Your task to perform on an android device: toggle notification dots Image 0: 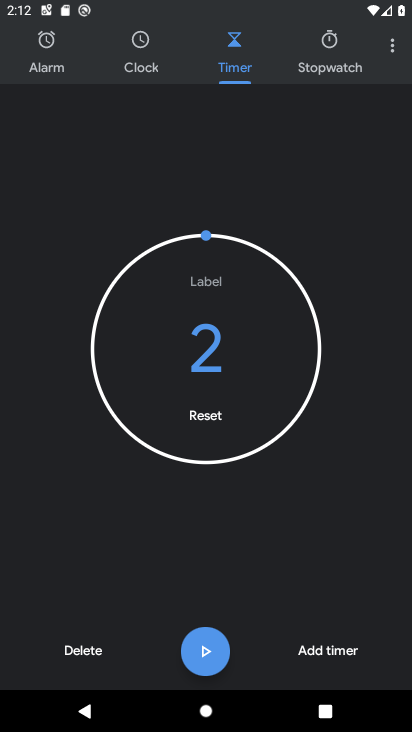
Step 0: press home button
Your task to perform on an android device: toggle notification dots Image 1: 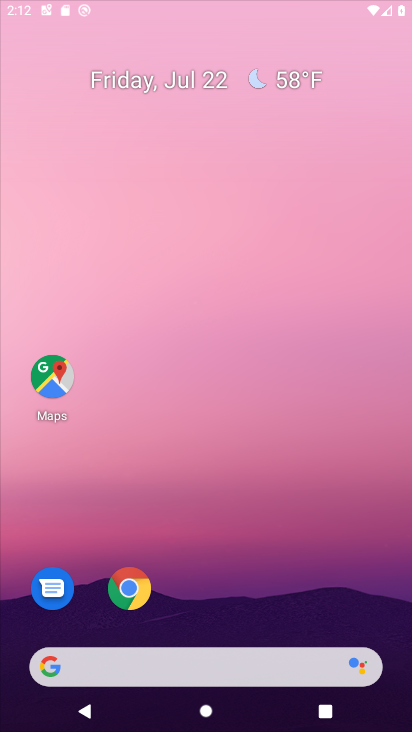
Step 1: drag from (247, 657) to (359, 65)
Your task to perform on an android device: toggle notification dots Image 2: 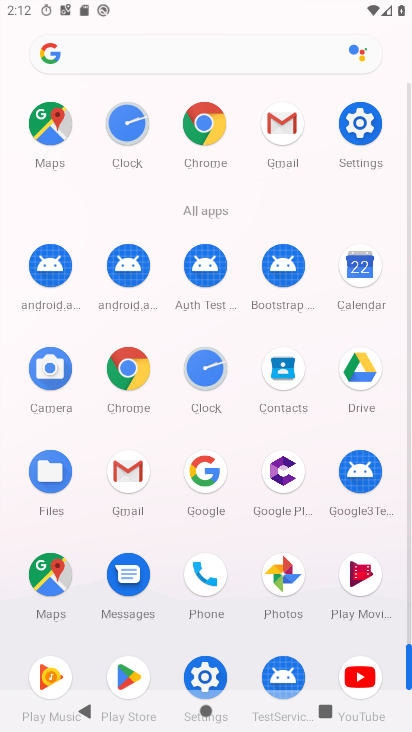
Step 2: click (377, 122)
Your task to perform on an android device: toggle notification dots Image 3: 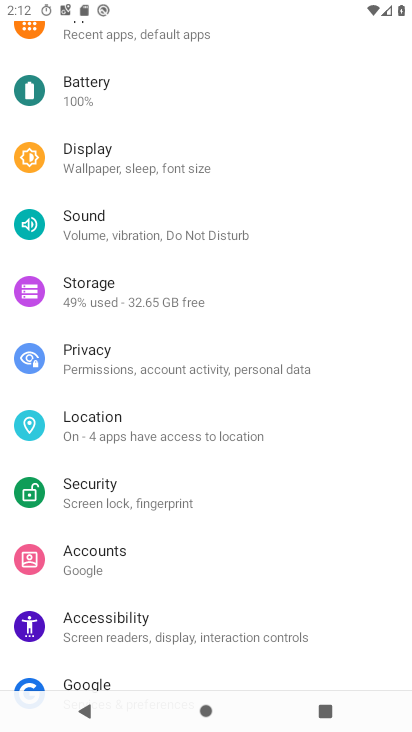
Step 3: drag from (219, 113) to (113, 532)
Your task to perform on an android device: toggle notification dots Image 4: 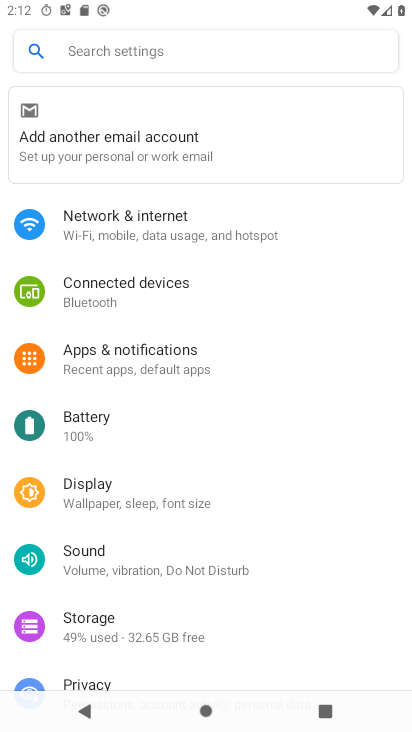
Step 4: click (82, 360)
Your task to perform on an android device: toggle notification dots Image 5: 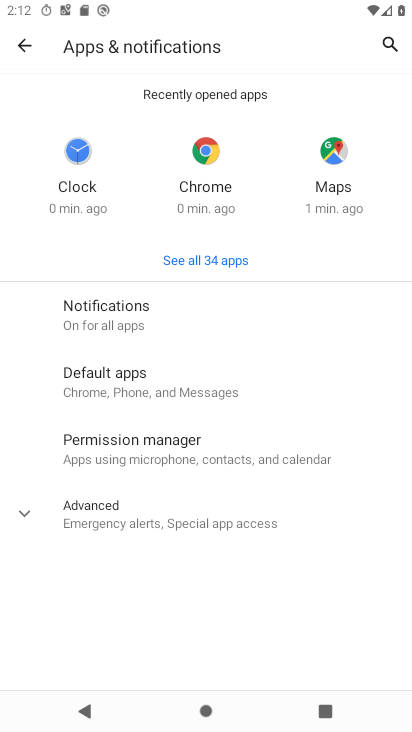
Step 5: click (94, 301)
Your task to perform on an android device: toggle notification dots Image 6: 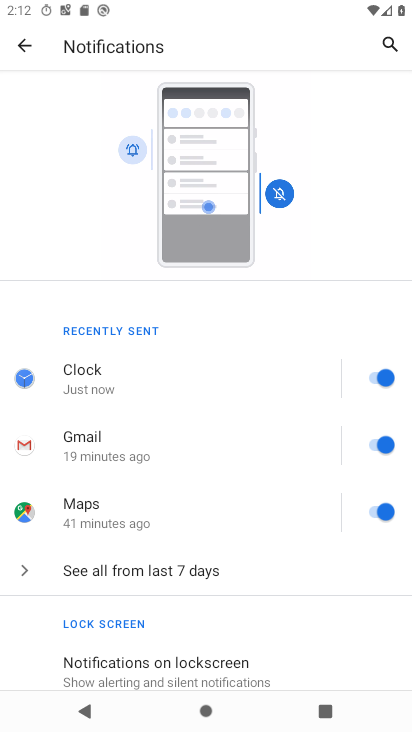
Step 6: drag from (228, 524) to (277, 153)
Your task to perform on an android device: toggle notification dots Image 7: 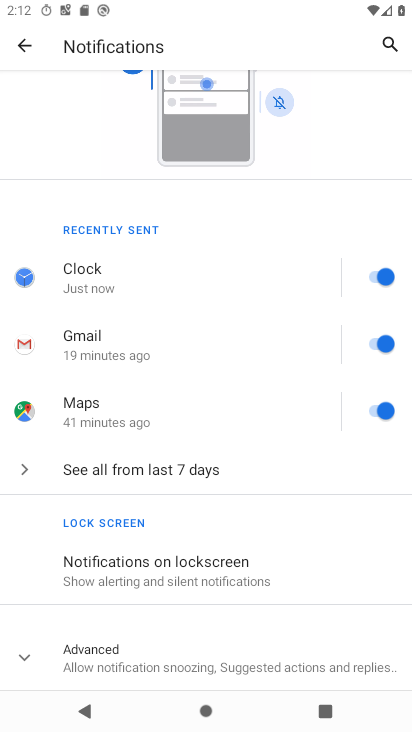
Step 7: click (119, 636)
Your task to perform on an android device: toggle notification dots Image 8: 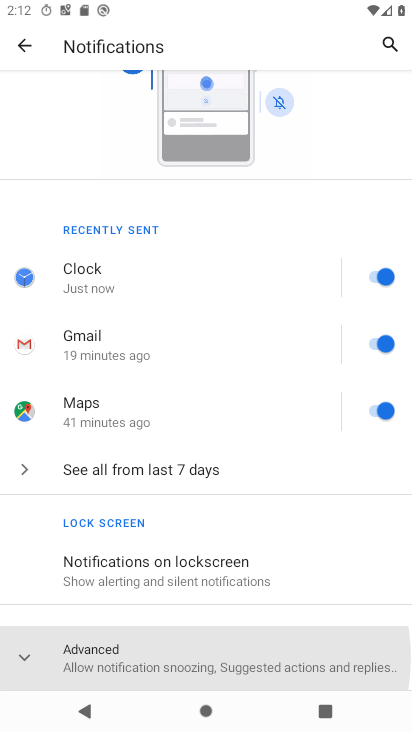
Step 8: drag from (130, 609) to (259, 281)
Your task to perform on an android device: toggle notification dots Image 9: 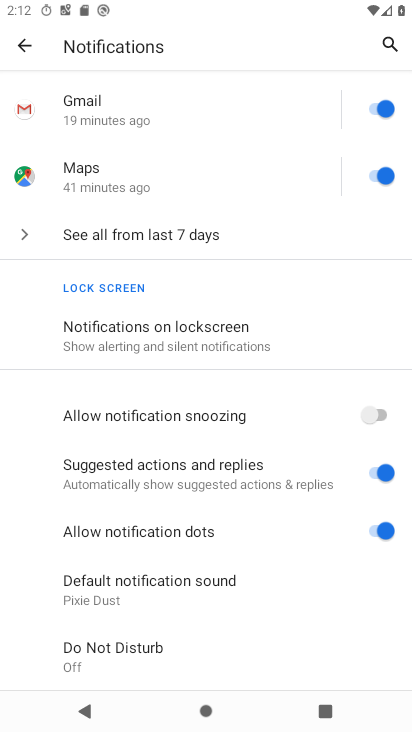
Step 9: drag from (178, 597) to (185, 385)
Your task to perform on an android device: toggle notification dots Image 10: 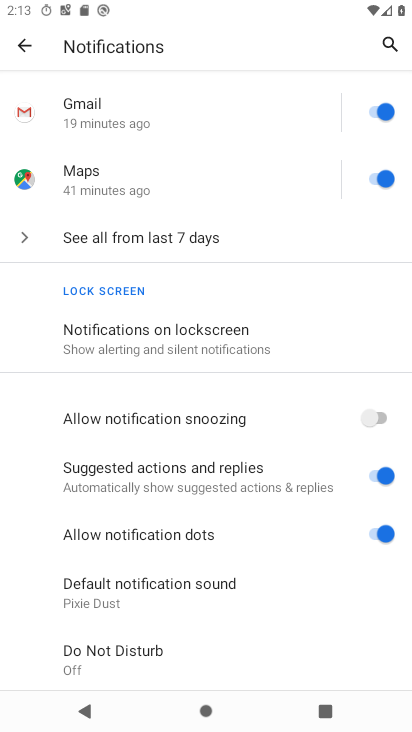
Step 10: click (361, 528)
Your task to perform on an android device: toggle notification dots Image 11: 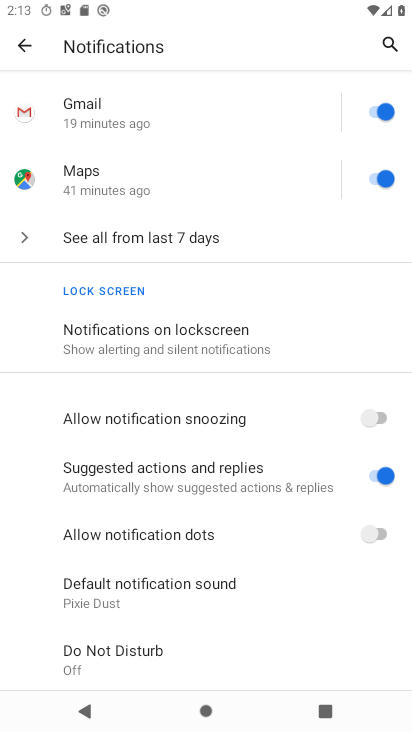
Step 11: task complete